Your task to perform on an android device: Go to settings Image 0: 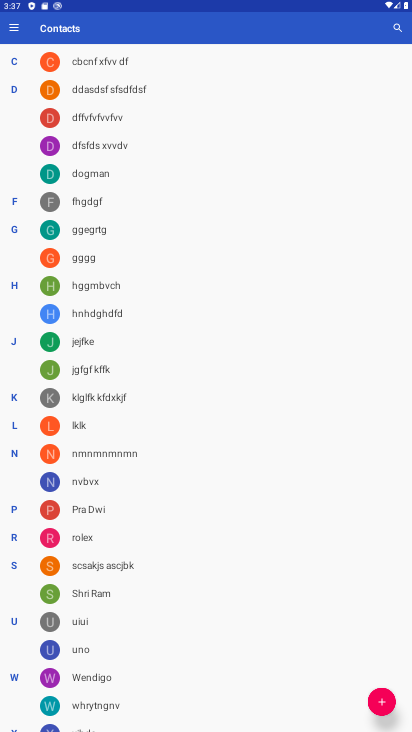
Step 0: press home button
Your task to perform on an android device: Go to settings Image 1: 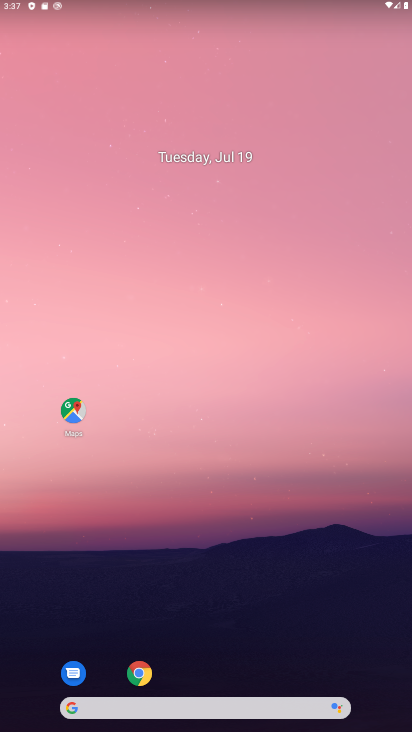
Step 1: drag from (341, 570) to (269, 15)
Your task to perform on an android device: Go to settings Image 2: 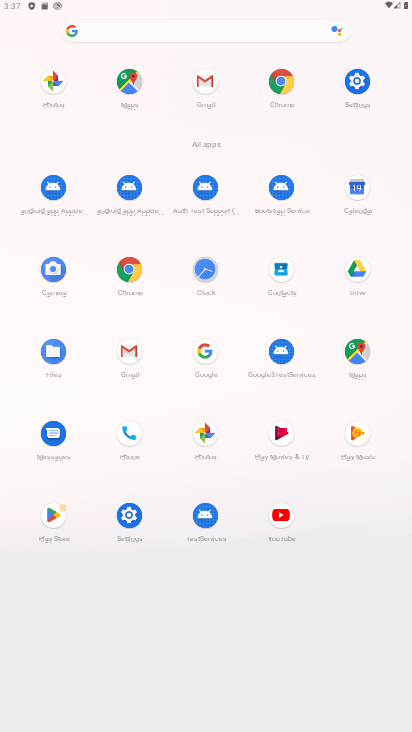
Step 2: click (358, 83)
Your task to perform on an android device: Go to settings Image 3: 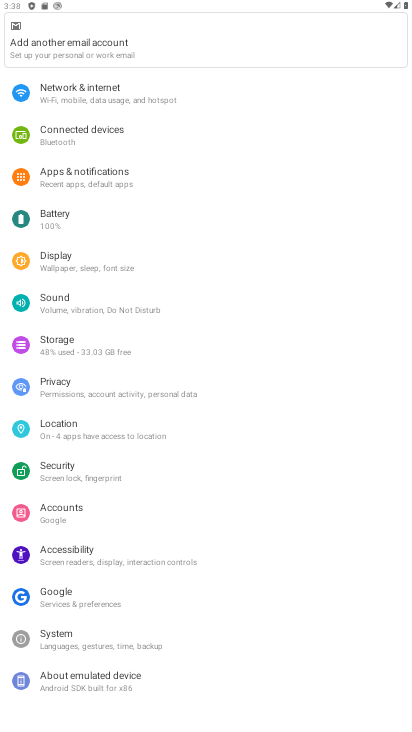
Step 3: task complete